Your task to perform on an android device: Go to wifi settings Image 0: 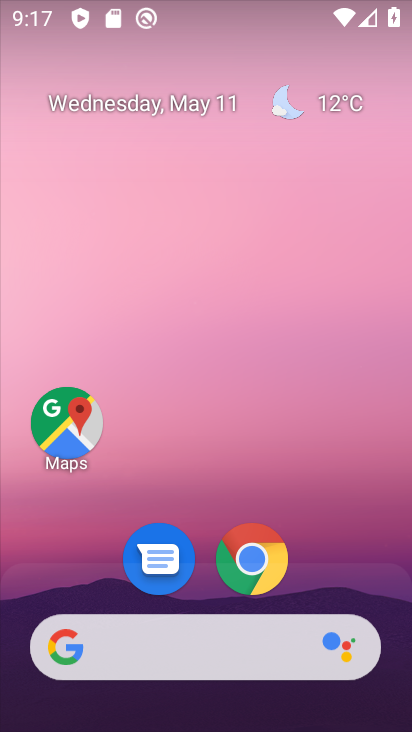
Step 0: drag from (56, 601) to (216, 137)
Your task to perform on an android device: Go to wifi settings Image 1: 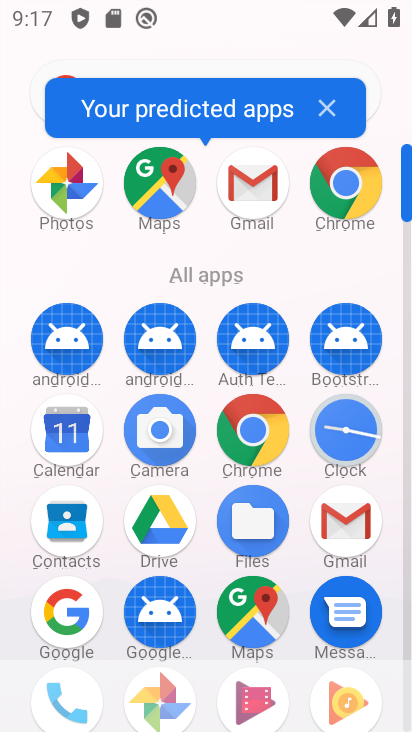
Step 1: drag from (143, 588) to (240, 326)
Your task to perform on an android device: Go to wifi settings Image 2: 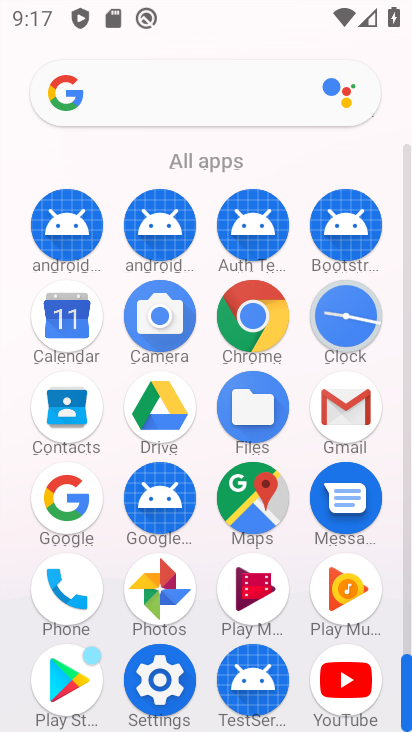
Step 2: click (160, 664)
Your task to perform on an android device: Go to wifi settings Image 3: 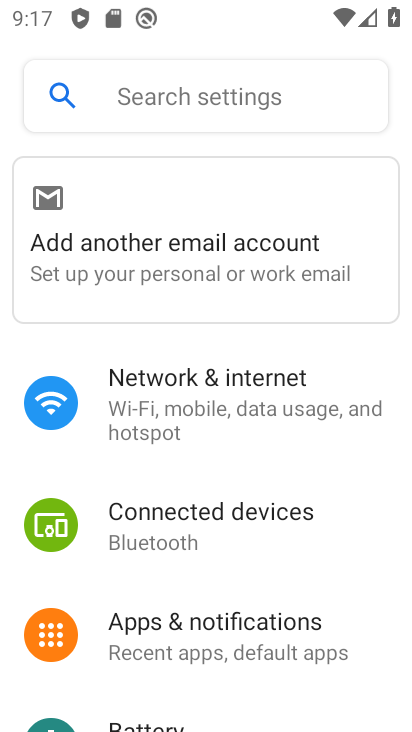
Step 3: click (255, 392)
Your task to perform on an android device: Go to wifi settings Image 4: 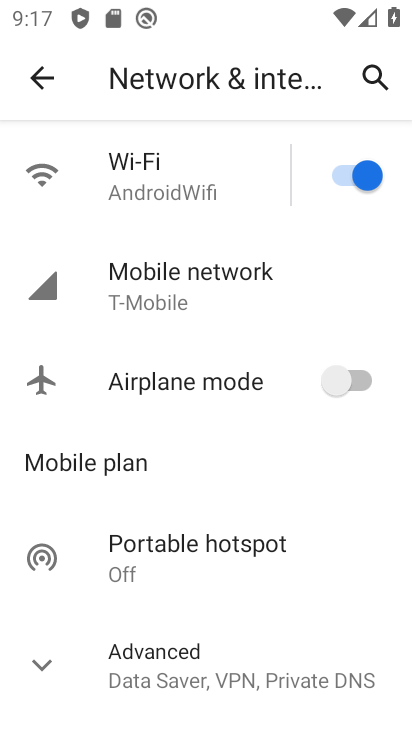
Step 4: click (186, 196)
Your task to perform on an android device: Go to wifi settings Image 5: 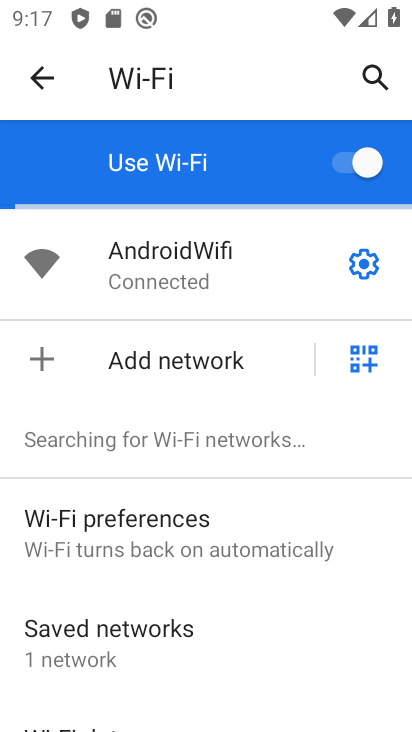
Step 5: task complete